Your task to perform on an android device: delete the emails in spam in the gmail app Image 0: 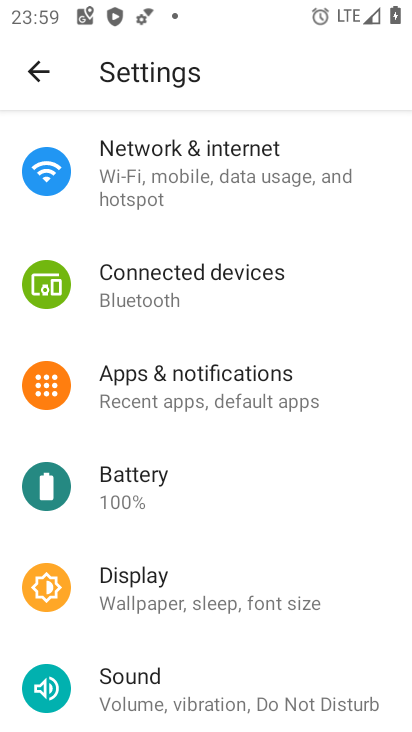
Step 0: press home button
Your task to perform on an android device: delete the emails in spam in the gmail app Image 1: 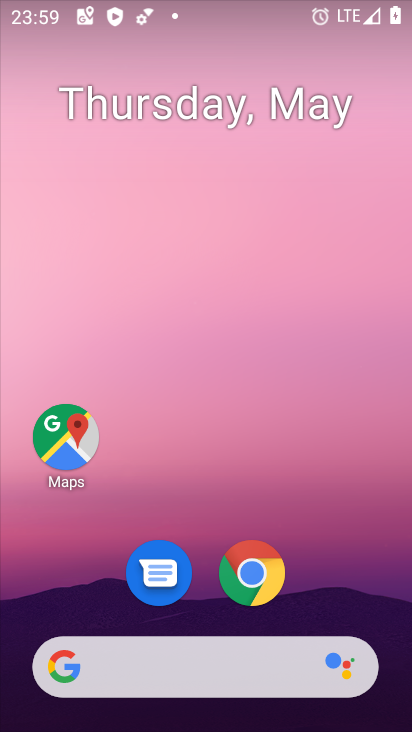
Step 1: drag from (202, 602) to (209, 264)
Your task to perform on an android device: delete the emails in spam in the gmail app Image 2: 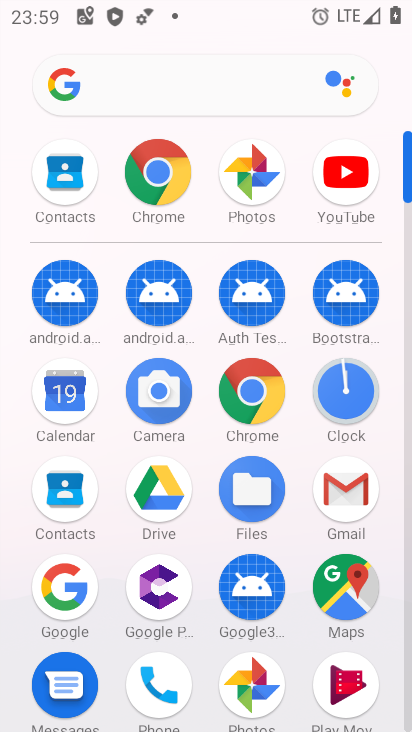
Step 2: click (327, 487)
Your task to perform on an android device: delete the emails in spam in the gmail app Image 3: 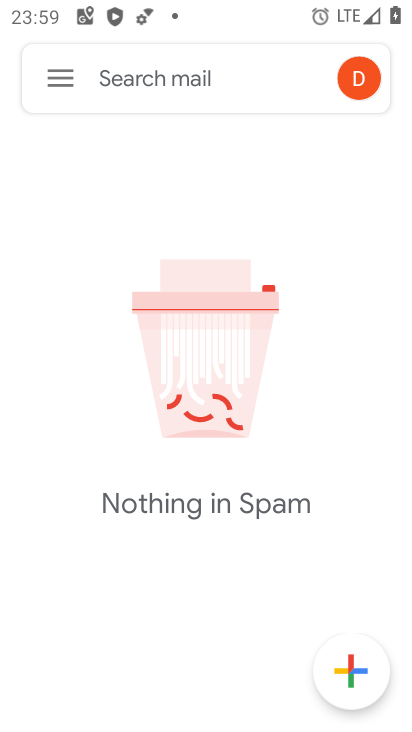
Step 3: click (69, 72)
Your task to perform on an android device: delete the emails in spam in the gmail app Image 4: 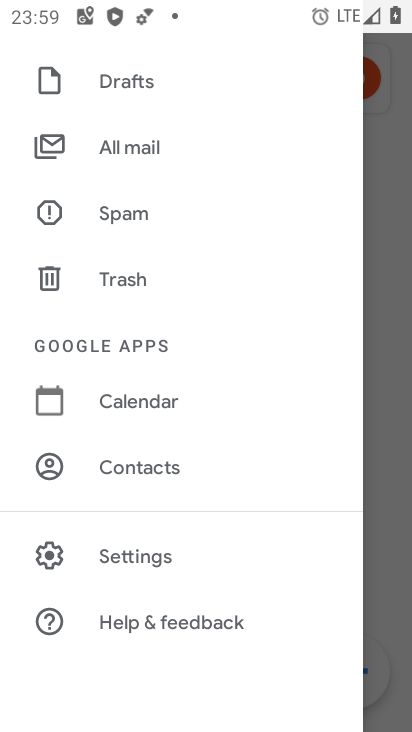
Step 4: drag from (166, 572) to (183, 467)
Your task to perform on an android device: delete the emails in spam in the gmail app Image 5: 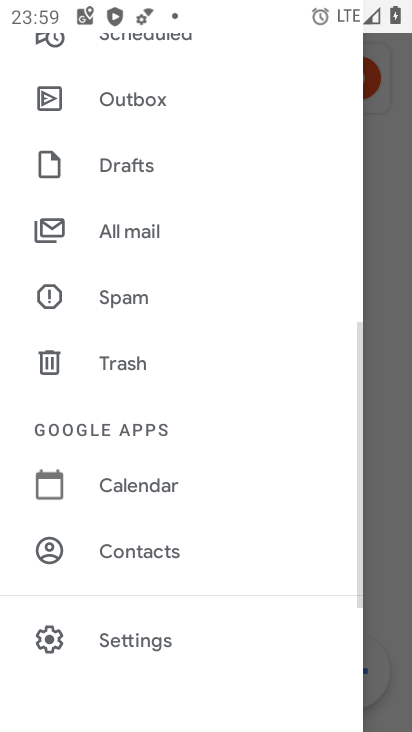
Step 5: click (163, 278)
Your task to perform on an android device: delete the emails in spam in the gmail app Image 6: 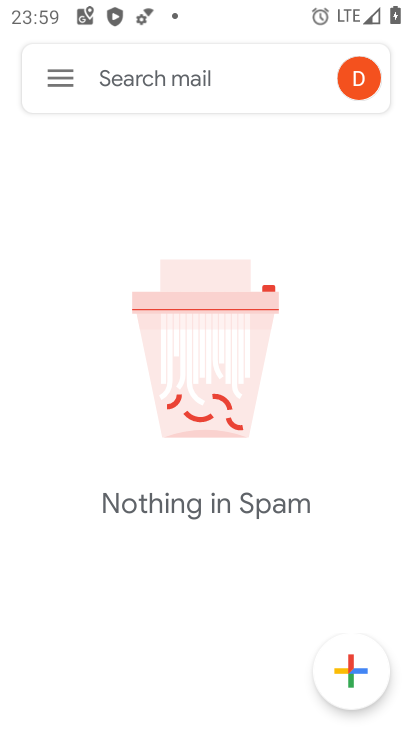
Step 6: task complete